Your task to perform on an android device: check storage Image 0: 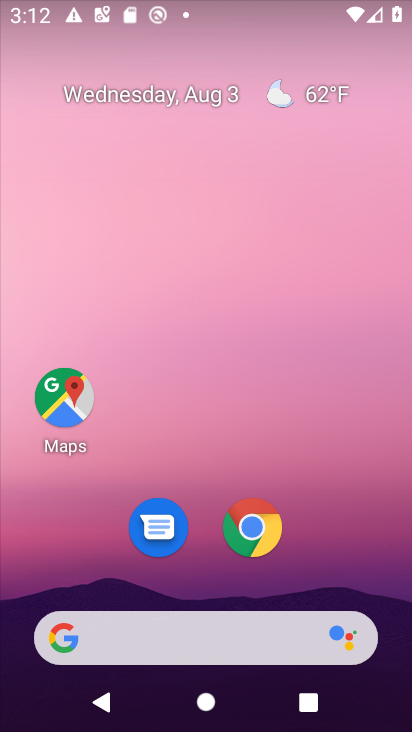
Step 0: drag from (339, 542) to (194, 87)
Your task to perform on an android device: check storage Image 1: 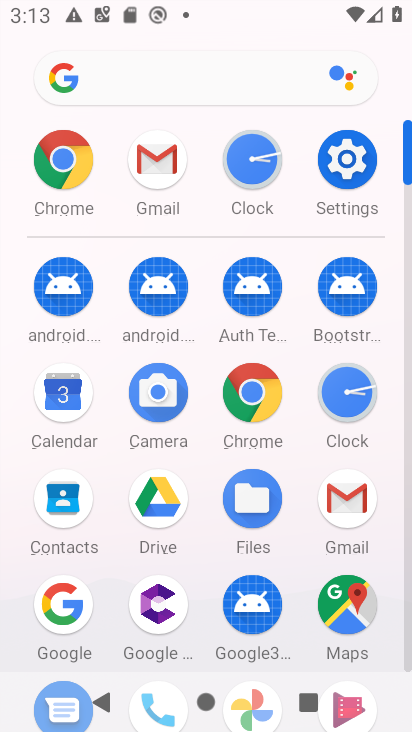
Step 1: click (357, 157)
Your task to perform on an android device: check storage Image 2: 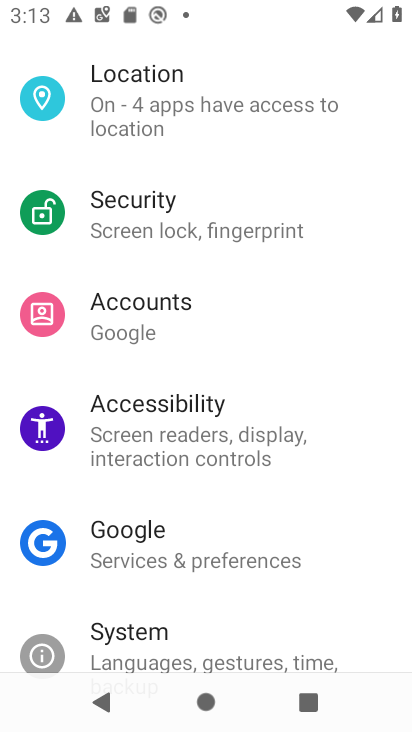
Step 2: drag from (282, 516) to (295, 587)
Your task to perform on an android device: check storage Image 3: 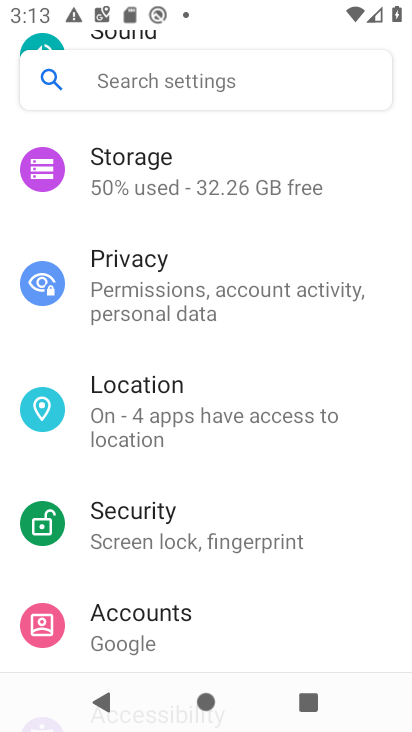
Step 3: click (197, 187)
Your task to perform on an android device: check storage Image 4: 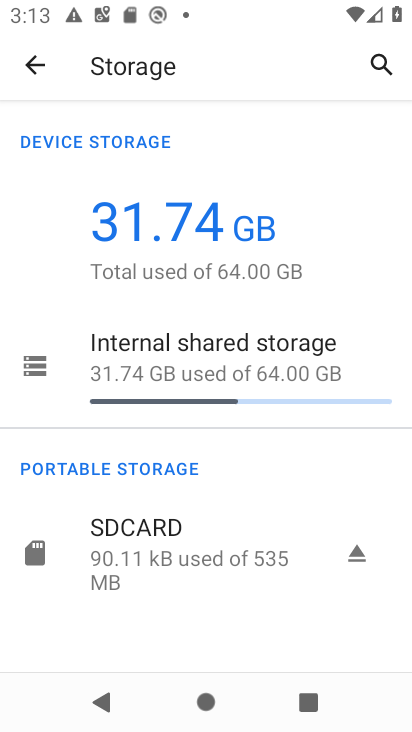
Step 4: task complete